Your task to perform on an android device: check storage Image 0: 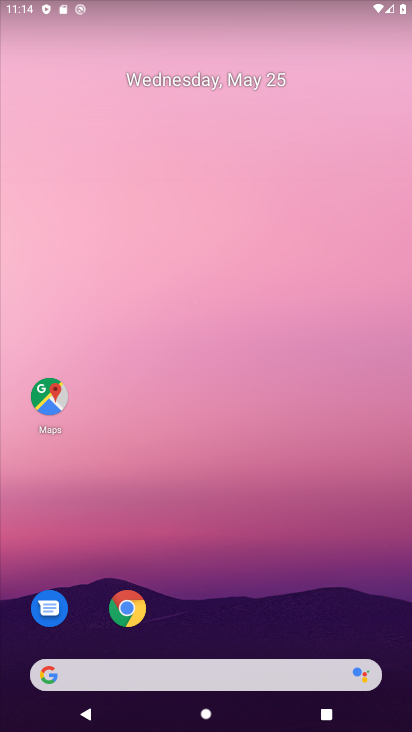
Step 0: drag from (197, 646) to (209, 132)
Your task to perform on an android device: check storage Image 1: 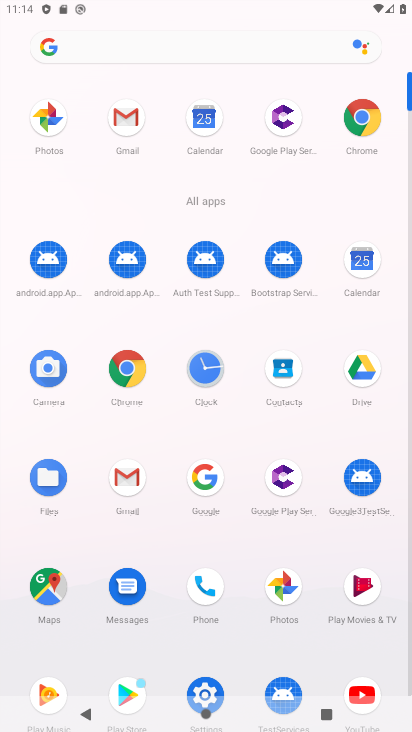
Step 1: click (207, 689)
Your task to perform on an android device: check storage Image 2: 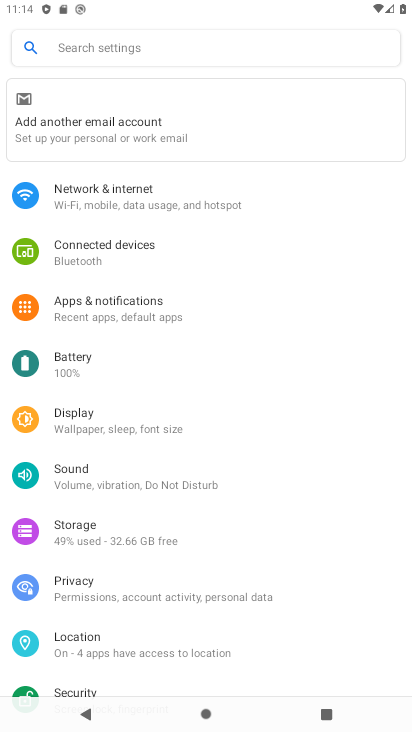
Step 2: click (108, 536)
Your task to perform on an android device: check storage Image 3: 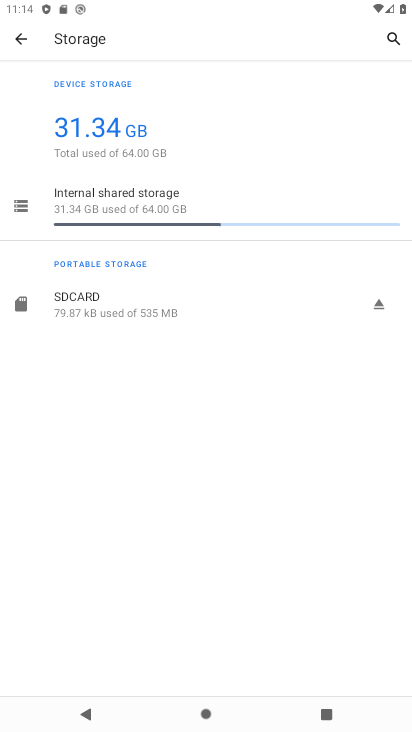
Step 3: task complete